Your task to perform on an android device: empty trash in google photos Image 0: 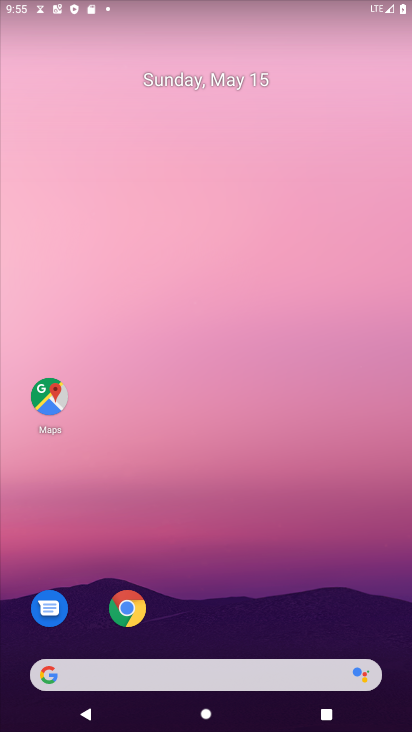
Step 0: drag from (240, 410) to (30, 0)
Your task to perform on an android device: empty trash in google photos Image 1: 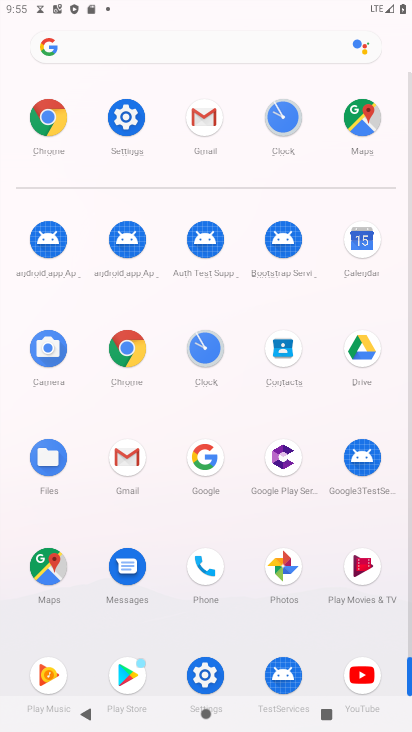
Step 1: click (277, 571)
Your task to perform on an android device: empty trash in google photos Image 2: 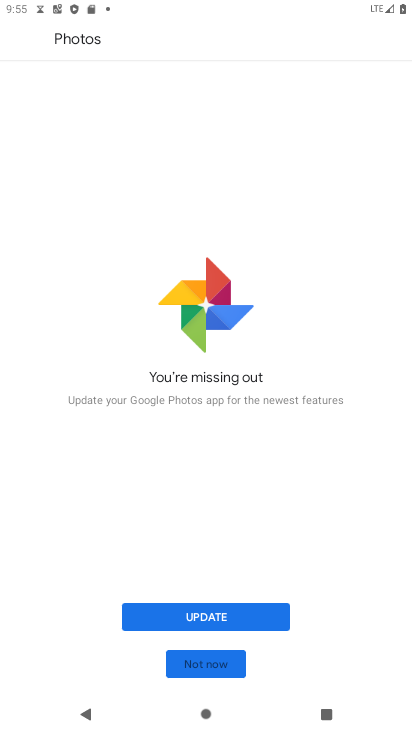
Step 2: click (225, 660)
Your task to perform on an android device: empty trash in google photos Image 3: 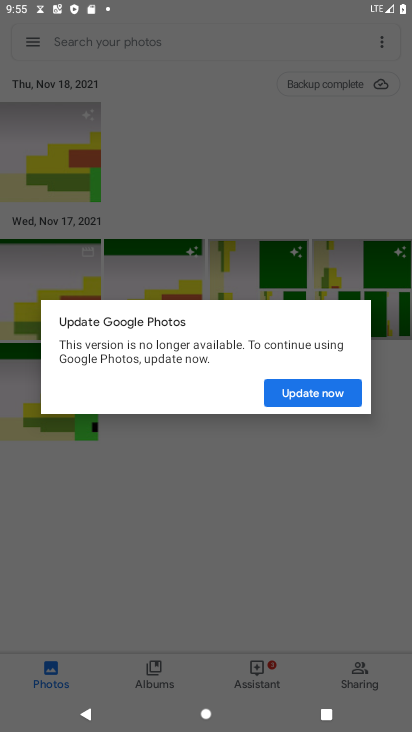
Step 3: click (319, 380)
Your task to perform on an android device: empty trash in google photos Image 4: 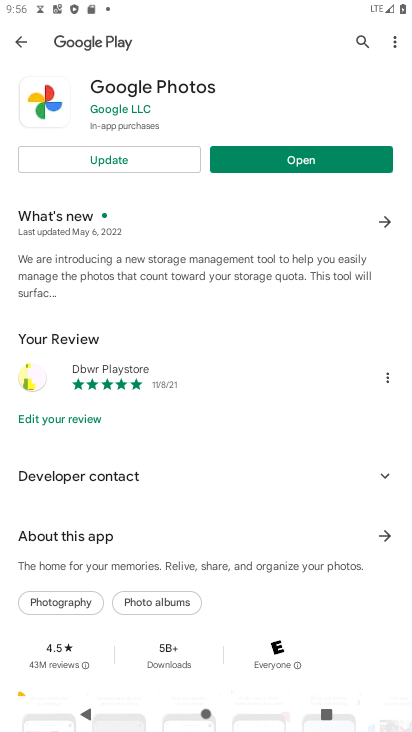
Step 4: click (278, 161)
Your task to perform on an android device: empty trash in google photos Image 5: 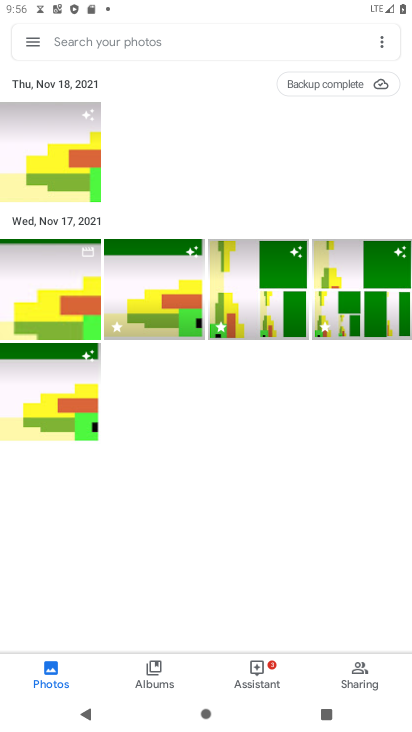
Step 5: click (37, 35)
Your task to perform on an android device: empty trash in google photos Image 6: 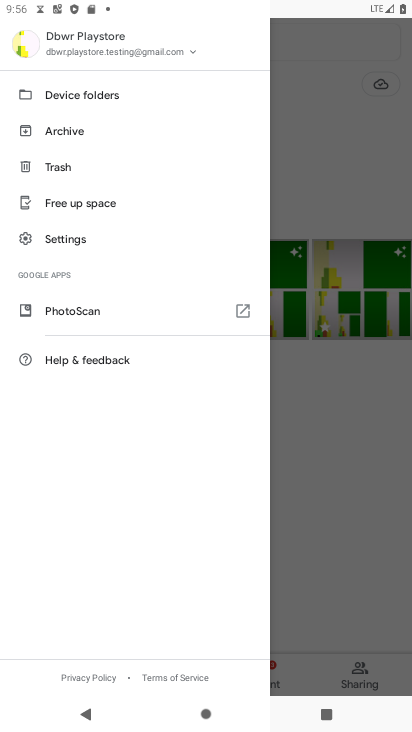
Step 6: click (64, 168)
Your task to perform on an android device: empty trash in google photos Image 7: 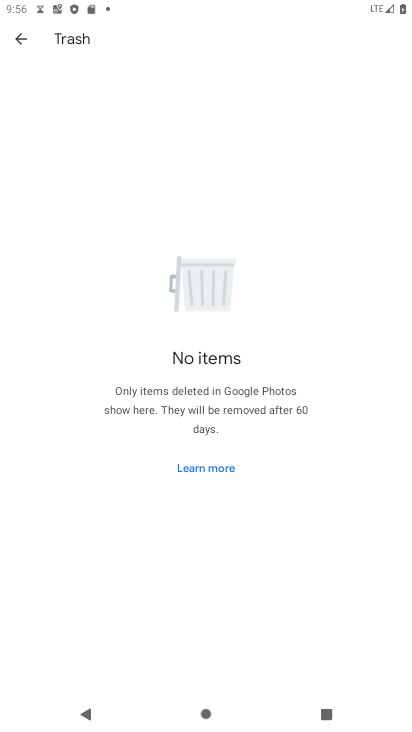
Step 7: task complete